Your task to perform on an android device: make emails show in primary in the gmail app Image 0: 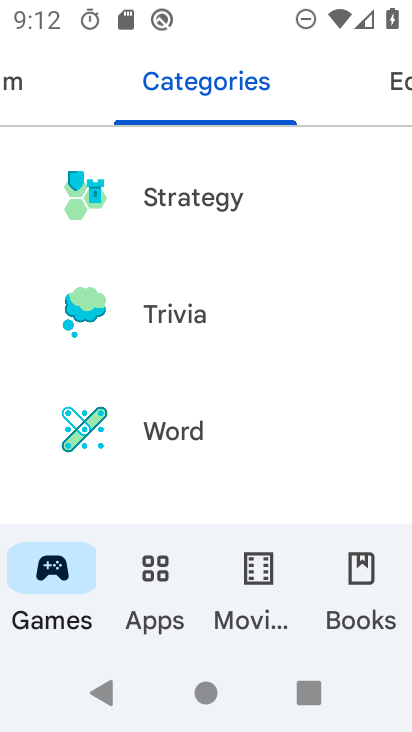
Step 0: press home button
Your task to perform on an android device: make emails show in primary in the gmail app Image 1: 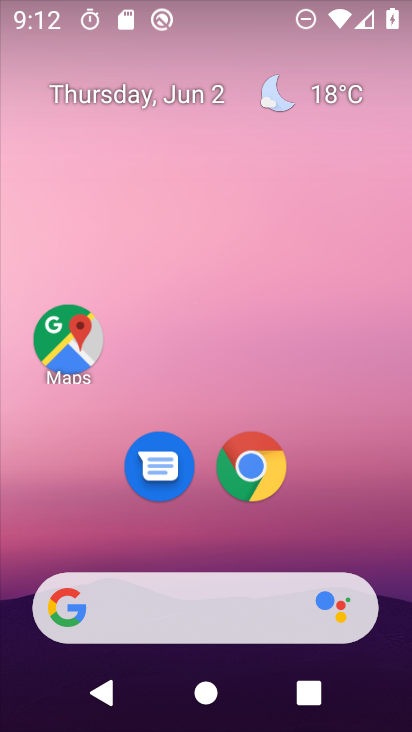
Step 1: drag from (320, 362) to (296, 47)
Your task to perform on an android device: make emails show in primary in the gmail app Image 2: 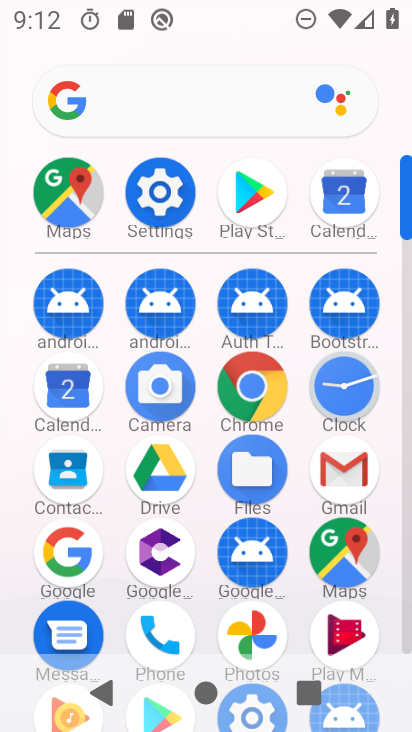
Step 2: click (348, 465)
Your task to perform on an android device: make emails show in primary in the gmail app Image 3: 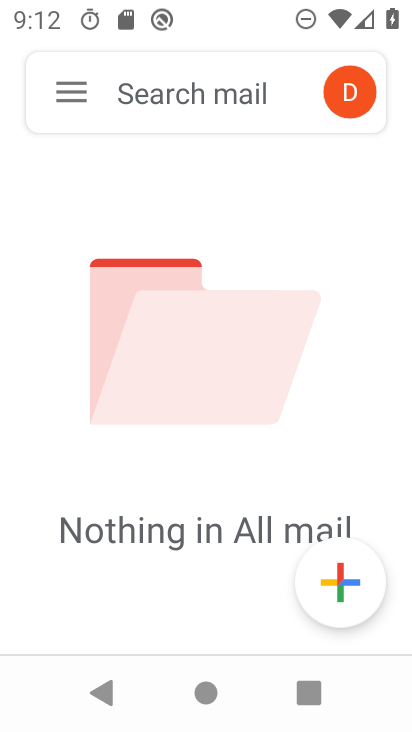
Step 3: click (76, 107)
Your task to perform on an android device: make emails show in primary in the gmail app Image 4: 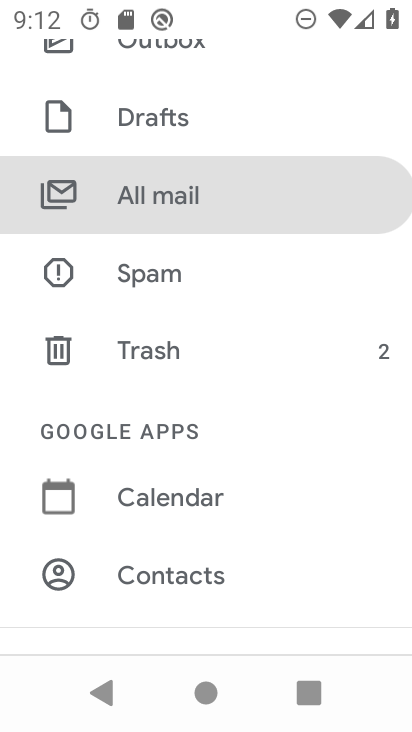
Step 4: drag from (256, 577) to (267, 73)
Your task to perform on an android device: make emails show in primary in the gmail app Image 5: 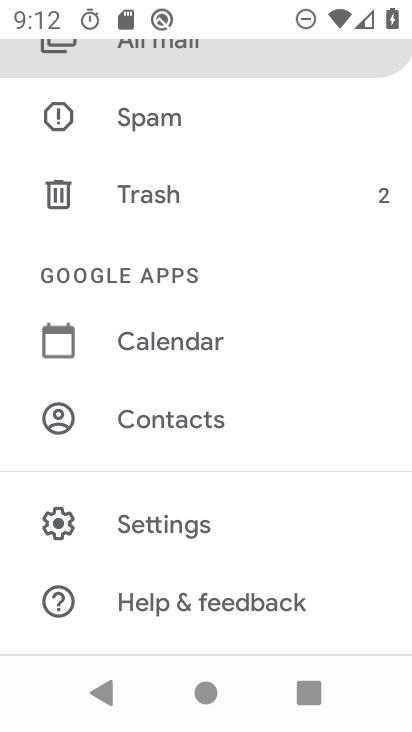
Step 5: click (167, 527)
Your task to perform on an android device: make emails show in primary in the gmail app Image 6: 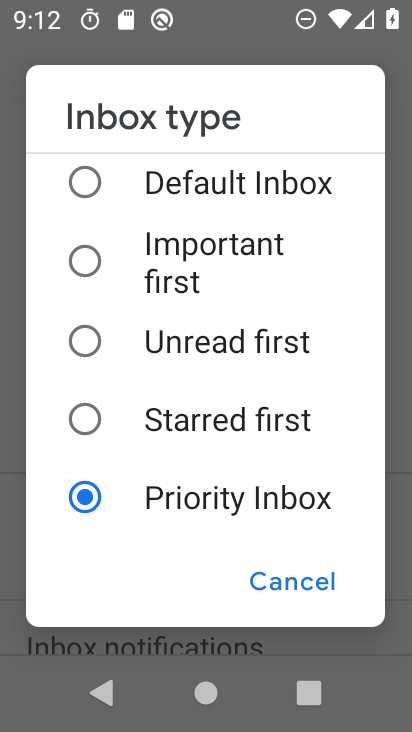
Step 6: click (289, 588)
Your task to perform on an android device: make emails show in primary in the gmail app Image 7: 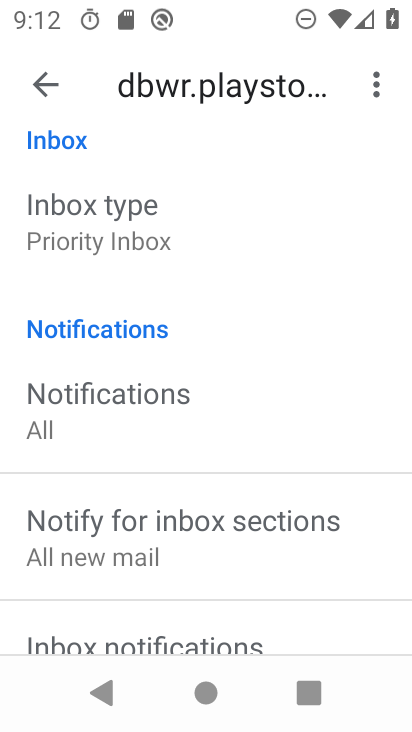
Step 7: click (38, 82)
Your task to perform on an android device: make emails show in primary in the gmail app Image 8: 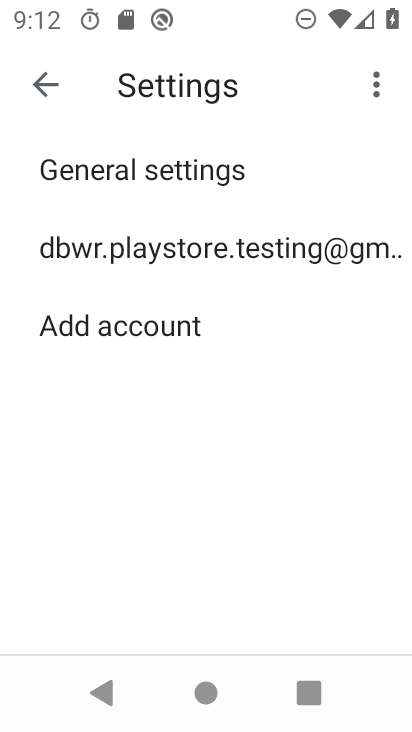
Step 8: click (196, 246)
Your task to perform on an android device: make emails show in primary in the gmail app Image 9: 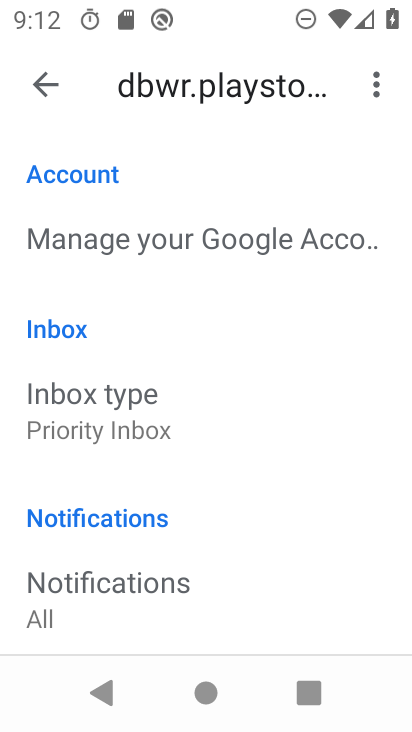
Step 9: task complete